Your task to perform on an android device: turn off improve location accuracy Image 0: 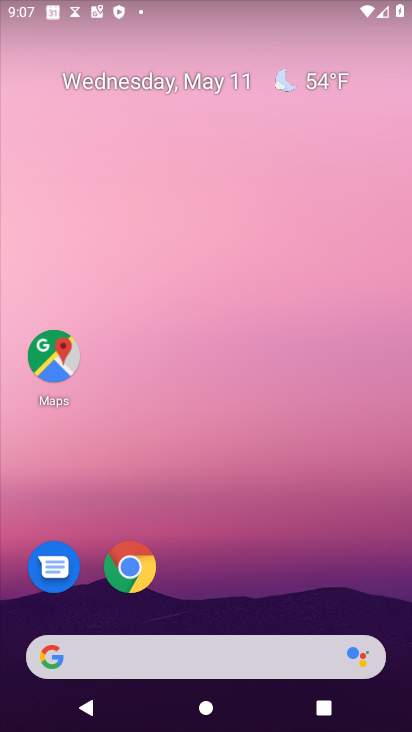
Step 0: drag from (204, 609) to (251, 7)
Your task to perform on an android device: turn off improve location accuracy Image 1: 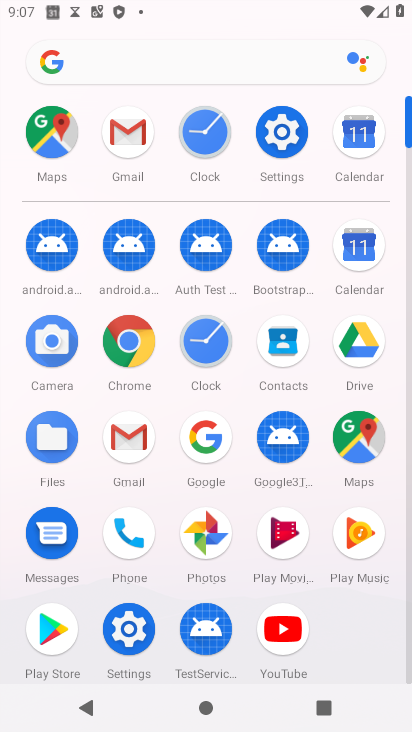
Step 1: click (283, 153)
Your task to perform on an android device: turn off improve location accuracy Image 2: 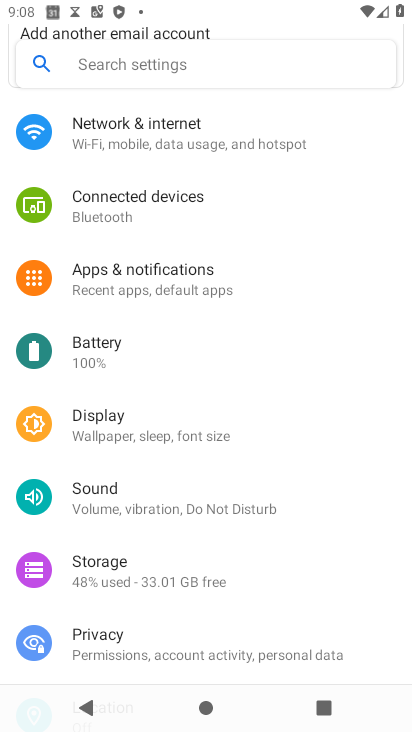
Step 2: drag from (121, 606) to (201, 262)
Your task to perform on an android device: turn off improve location accuracy Image 3: 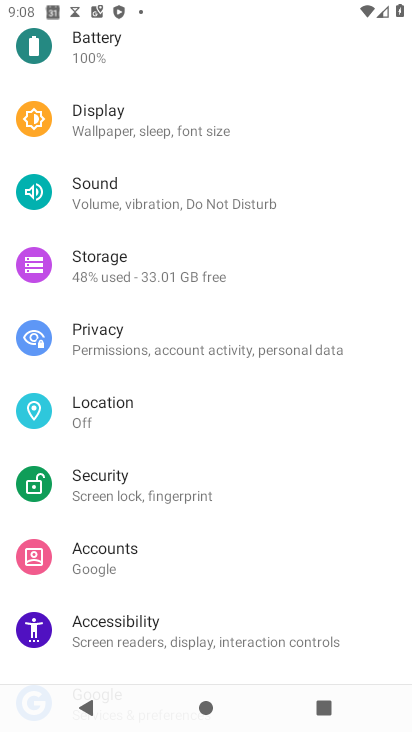
Step 3: click (106, 413)
Your task to perform on an android device: turn off improve location accuracy Image 4: 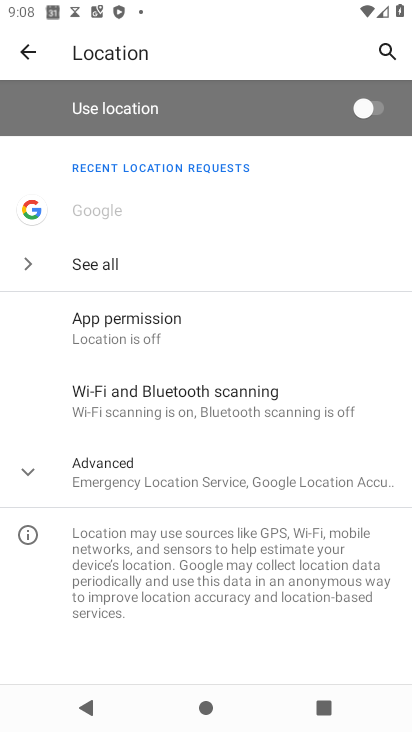
Step 4: click (127, 468)
Your task to perform on an android device: turn off improve location accuracy Image 5: 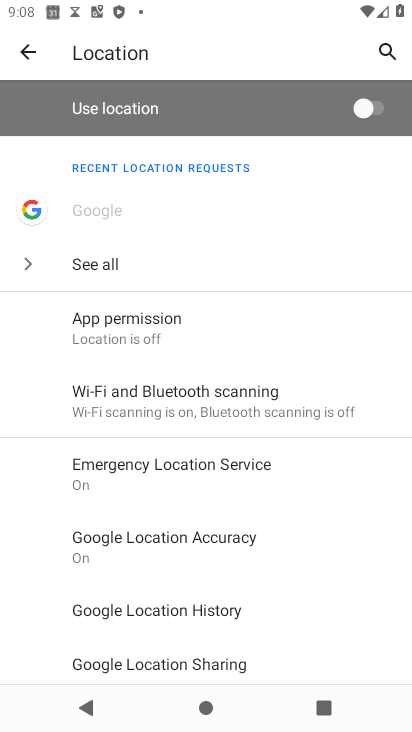
Step 5: click (177, 537)
Your task to perform on an android device: turn off improve location accuracy Image 6: 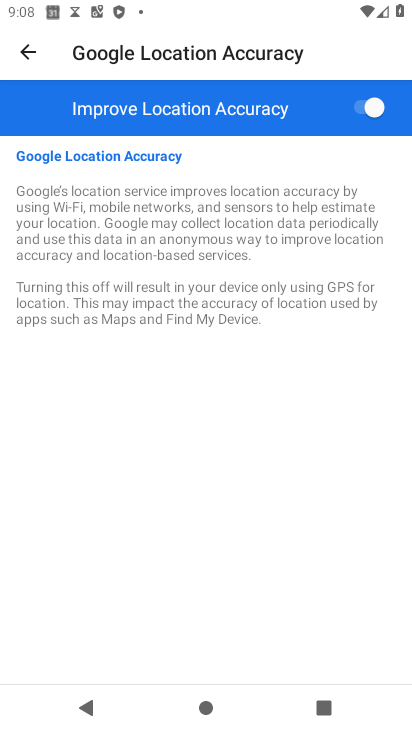
Step 6: click (346, 110)
Your task to perform on an android device: turn off improve location accuracy Image 7: 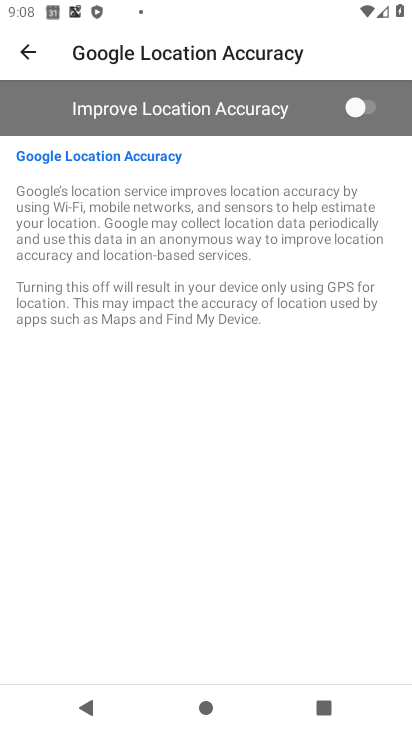
Step 7: task complete